Your task to perform on an android device: toggle notification dots Image 0: 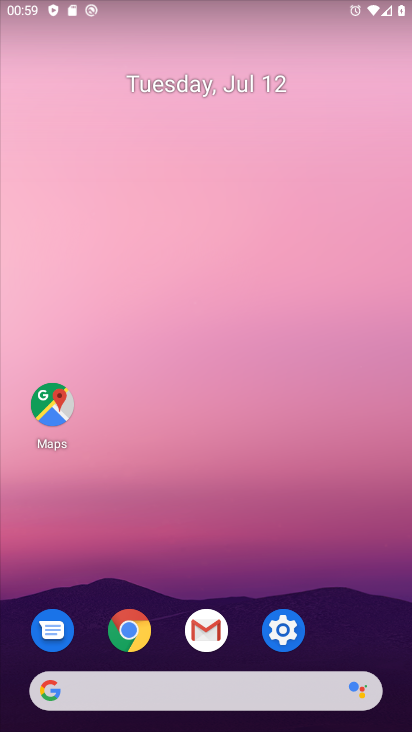
Step 0: click (267, 629)
Your task to perform on an android device: toggle notification dots Image 1: 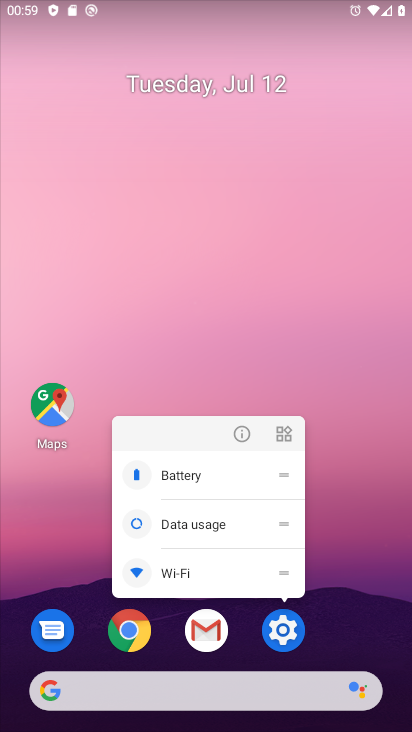
Step 1: click (287, 632)
Your task to perform on an android device: toggle notification dots Image 2: 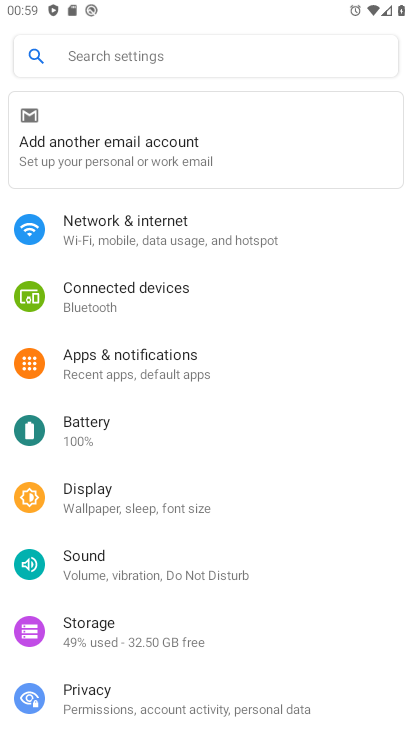
Step 2: click (131, 60)
Your task to perform on an android device: toggle notification dots Image 3: 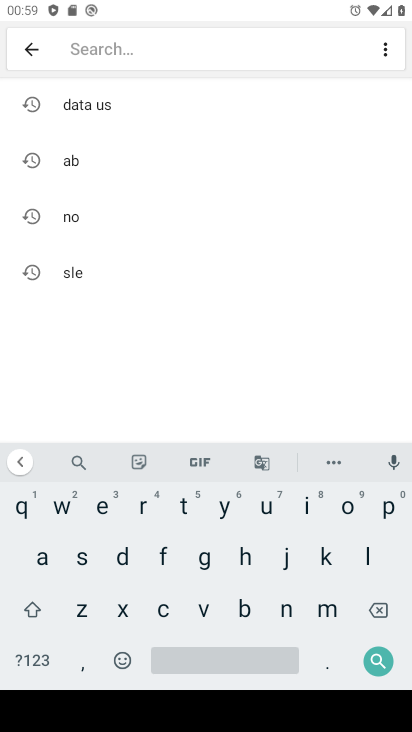
Step 3: click (119, 565)
Your task to perform on an android device: toggle notification dots Image 4: 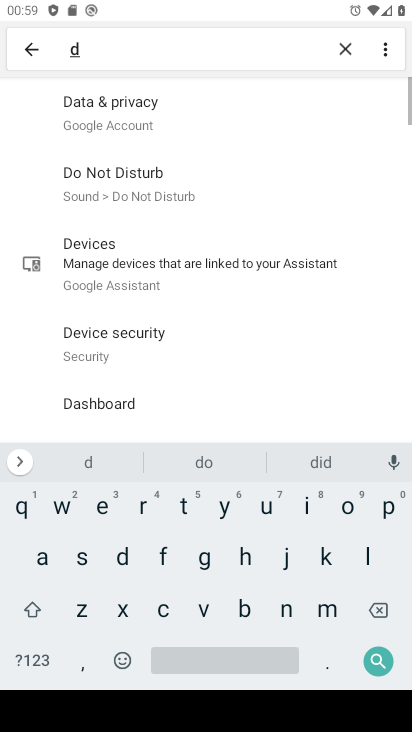
Step 4: click (343, 511)
Your task to perform on an android device: toggle notification dots Image 5: 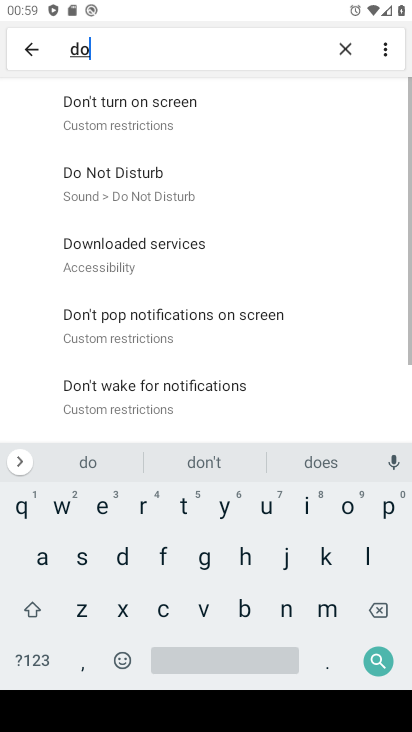
Step 5: click (182, 506)
Your task to perform on an android device: toggle notification dots Image 6: 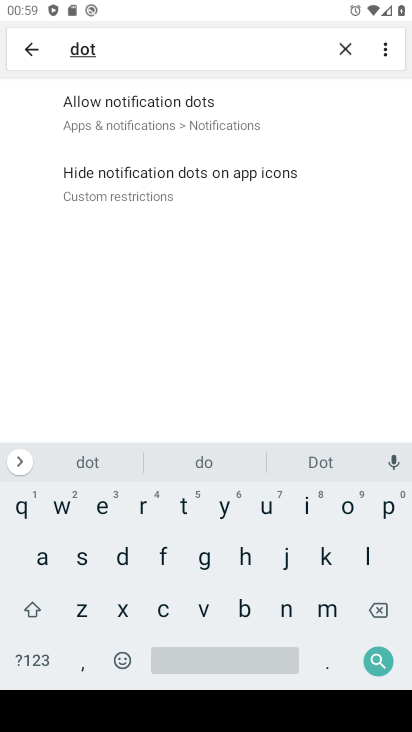
Step 6: click (167, 103)
Your task to perform on an android device: toggle notification dots Image 7: 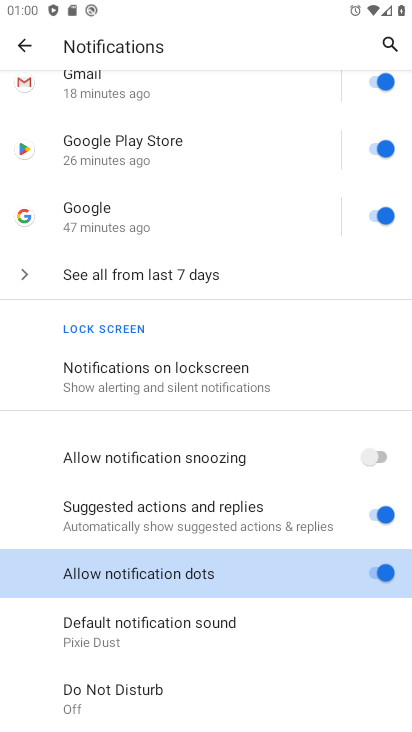
Step 7: click (211, 581)
Your task to perform on an android device: toggle notification dots Image 8: 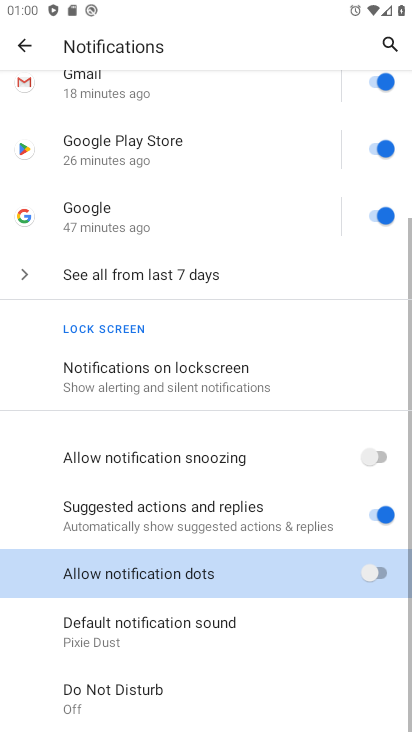
Step 8: click (210, 581)
Your task to perform on an android device: toggle notification dots Image 9: 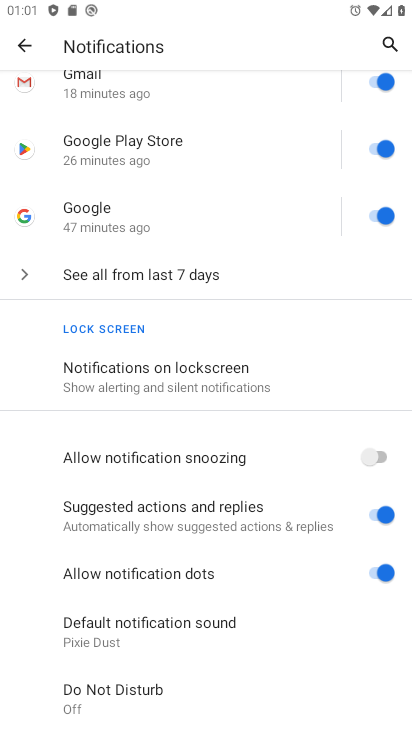
Step 9: task complete